Your task to perform on an android device: Open Chrome and go to settings Image 0: 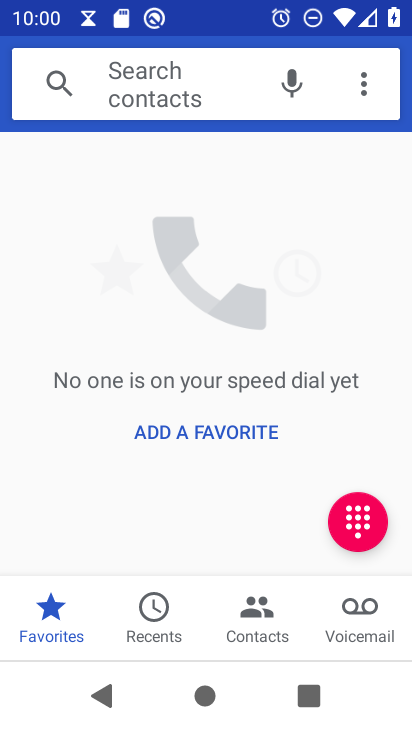
Step 0: press home button
Your task to perform on an android device: Open Chrome and go to settings Image 1: 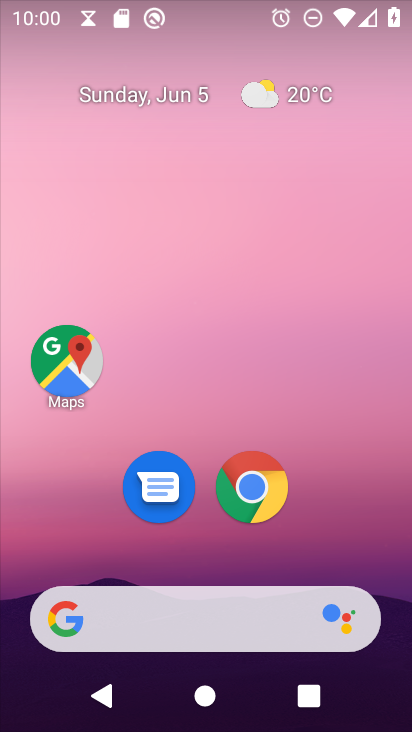
Step 1: click (262, 480)
Your task to perform on an android device: Open Chrome and go to settings Image 2: 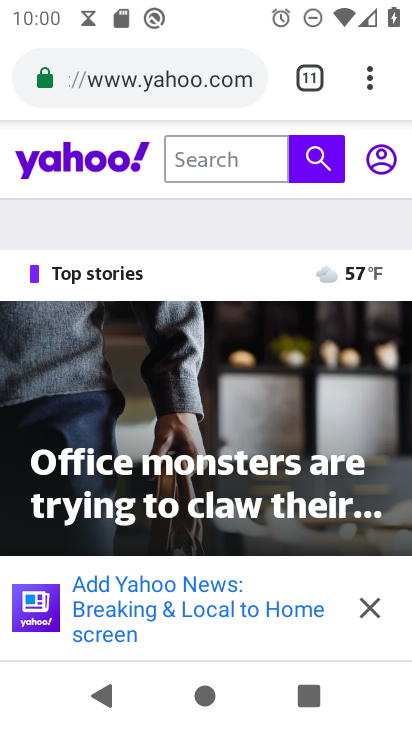
Step 2: click (374, 68)
Your task to perform on an android device: Open Chrome and go to settings Image 3: 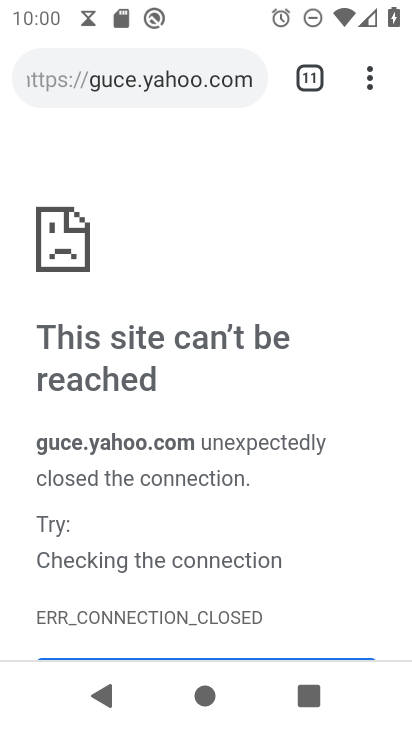
Step 3: click (369, 76)
Your task to perform on an android device: Open Chrome and go to settings Image 4: 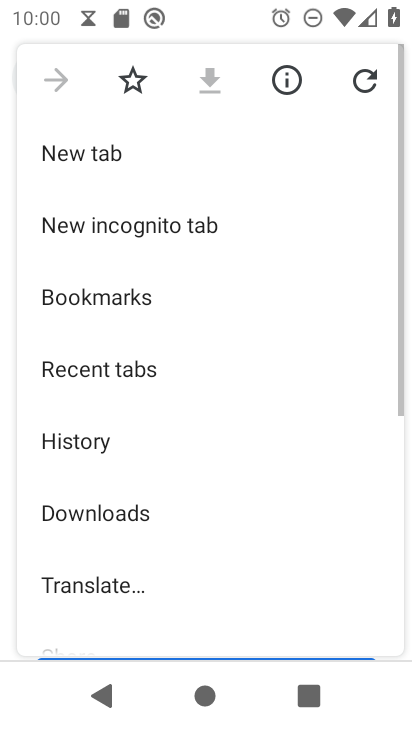
Step 4: drag from (183, 537) to (254, 79)
Your task to perform on an android device: Open Chrome and go to settings Image 5: 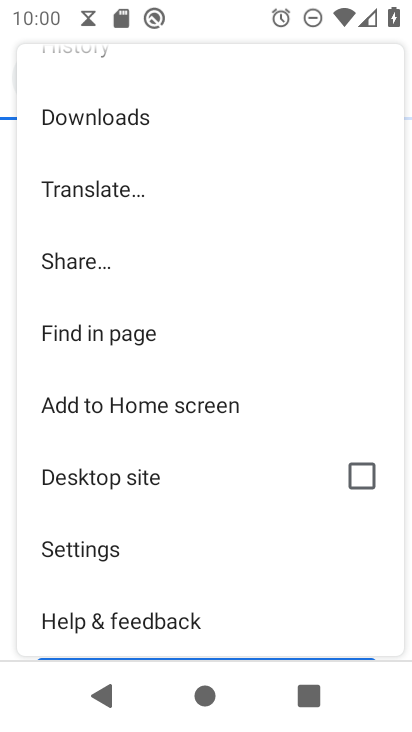
Step 5: click (122, 544)
Your task to perform on an android device: Open Chrome and go to settings Image 6: 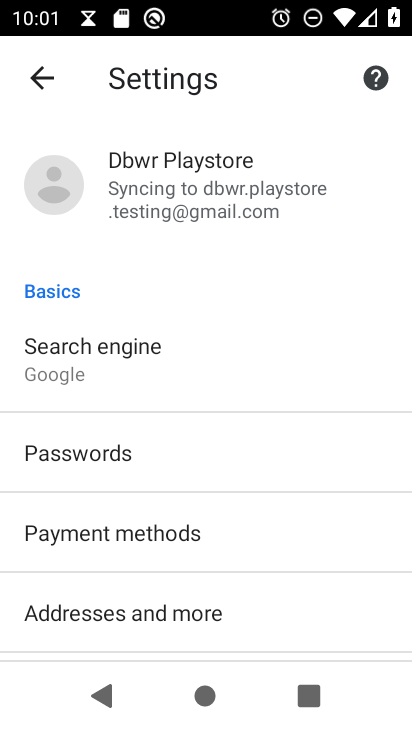
Step 6: task complete